Your task to perform on an android device: Go to network settings Image 0: 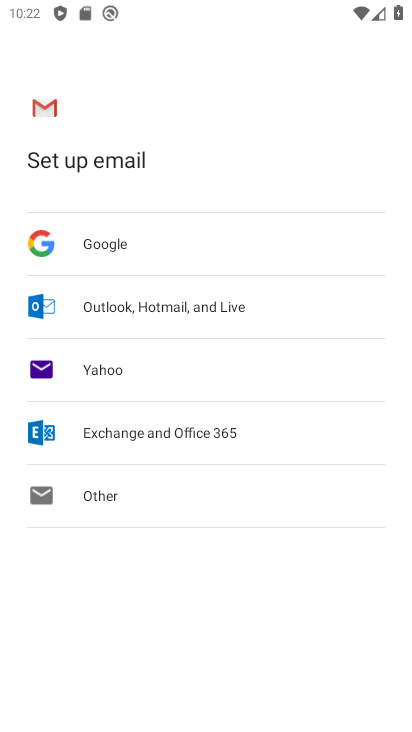
Step 0: press home button
Your task to perform on an android device: Go to network settings Image 1: 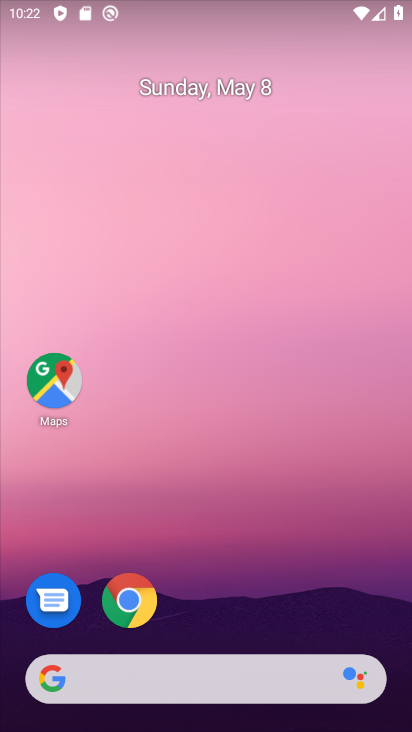
Step 1: drag from (204, 719) to (201, 137)
Your task to perform on an android device: Go to network settings Image 2: 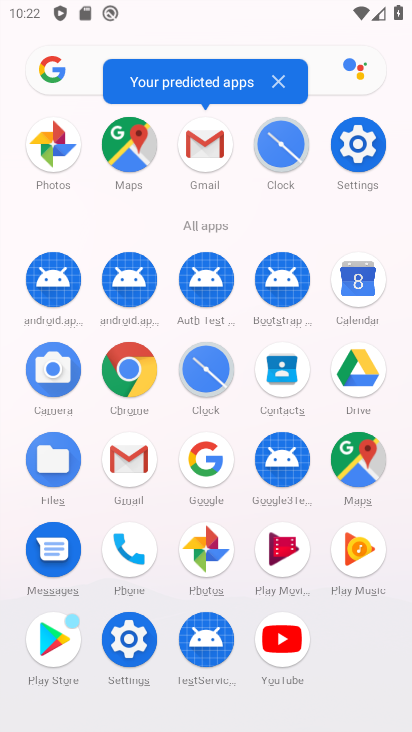
Step 2: click (362, 147)
Your task to perform on an android device: Go to network settings Image 3: 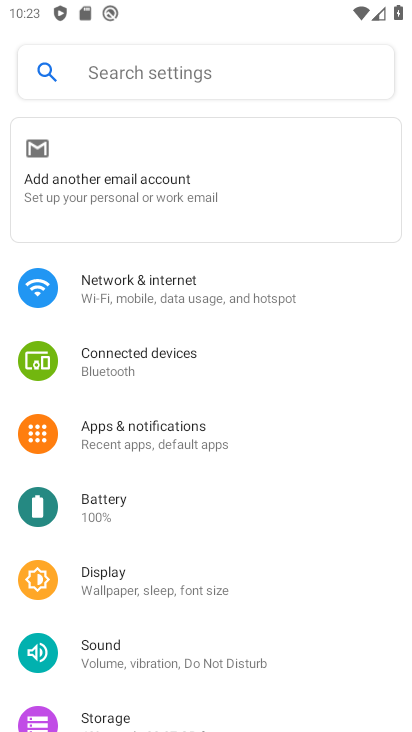
Step 3: click (144, 282)
Your task to perform on an android device: Go to network settings Image 4: 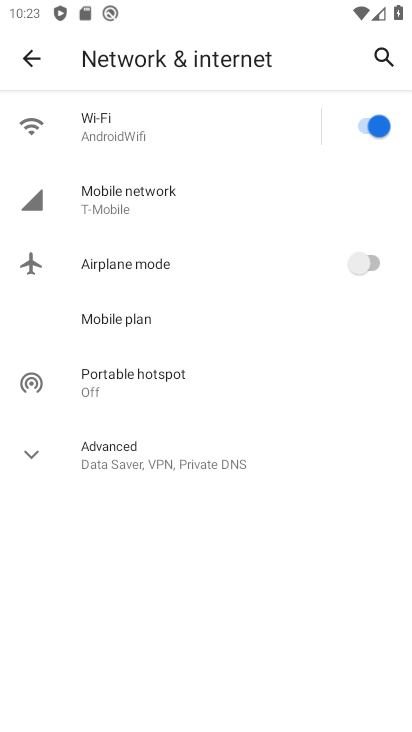
Step 4: task complete